Your task to perform on an android device: open device folders in google photos Image 0: 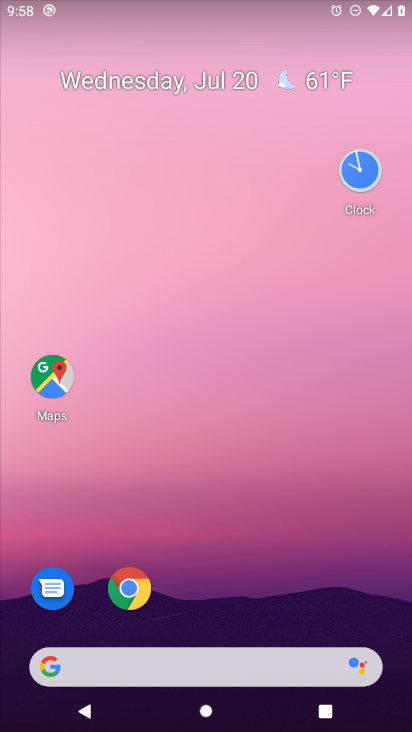
Step 0: drag from (72, 535) to (137, 300)
Your task to perform on an android device: open device folders in google photos Image 1: 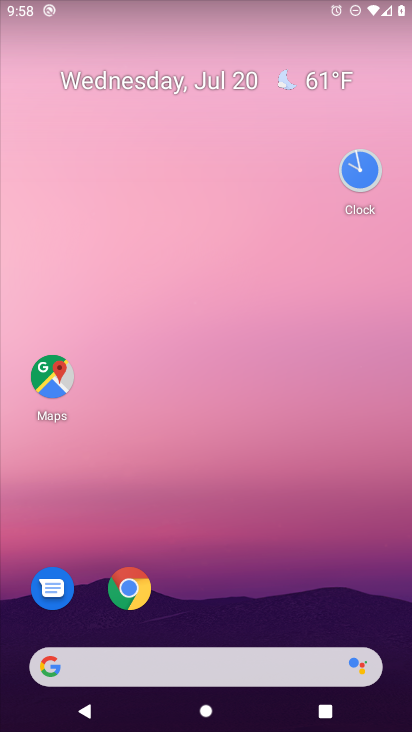
Step 1: drag from (46, 690) to (189, 138)
Your task to perform on an android device: open device folders in google photos Image 2: 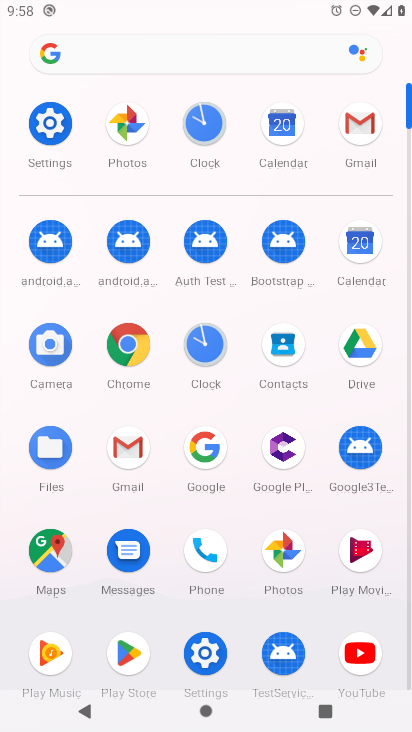
Step 2: click (286, 548)
Your task to perform on an android device: open device folders in google photos Image 3: 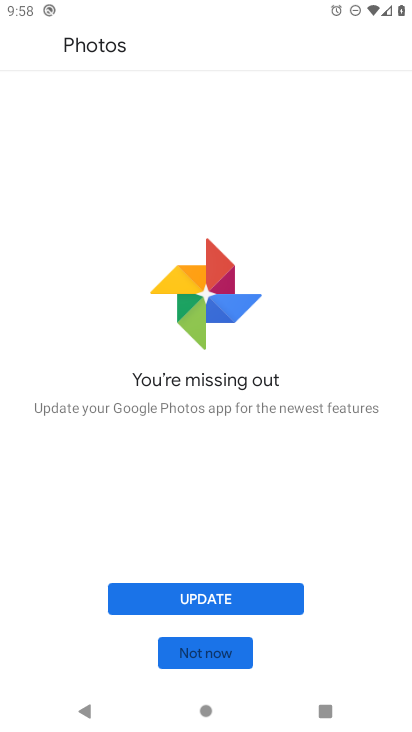
Step 3: click (209, 590)
Your task to perform on an android device: open device folders in google photos Image 4: 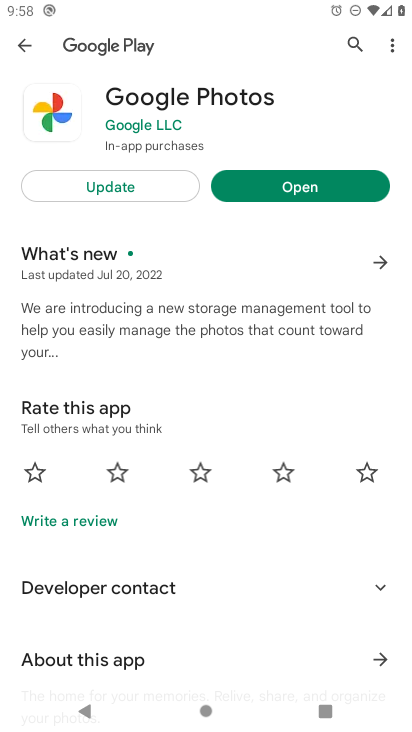
Step 4: click (287, 193)
Your task to perform on an android device: open device folders in google photos Image 5: 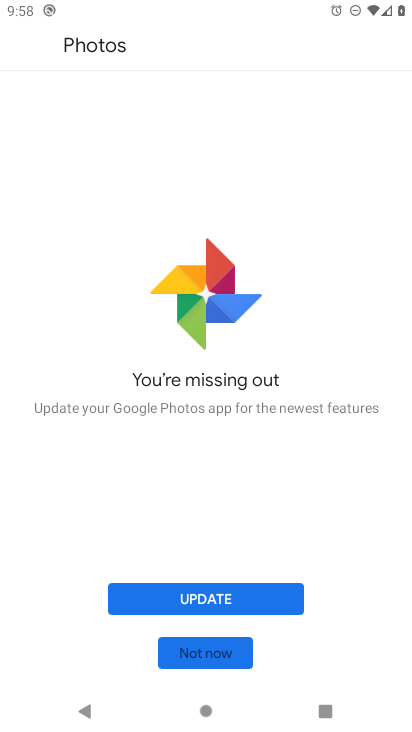
Step 5: task complete